Your task to perform on an android device: open app "Messages" (install if not already installed), go to login, and select forgot password Image 0: 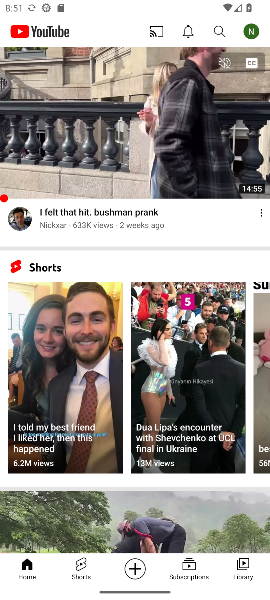
Step 0: press home button
Your task to perform on an android device: open app "Messages" (install if not already installed), go to login, and select forgot password Image 1: 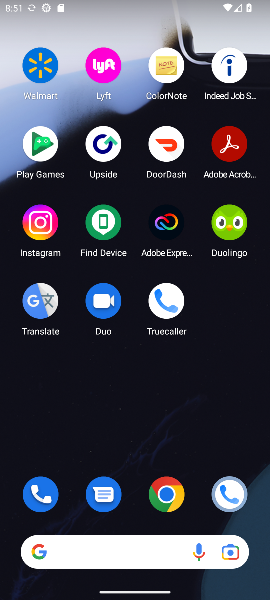
Step 1: drag from (194, 517) to (195, 175)
Your task to perform on an android device: open app "Messages" (install if not already installed), go to login, and select forgot password Image 2: 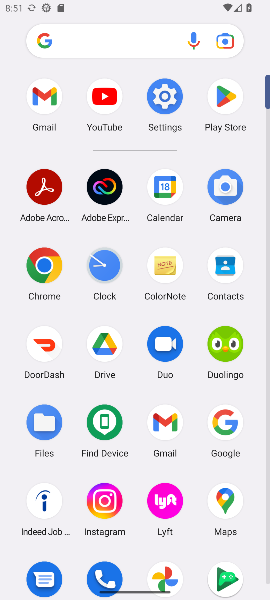
Step 2: drag from (197, 469) to (190, 177)
Your task to perform on an android device: open app "Messages" (install if not already installed), go to login, and select forgot password Image 3: 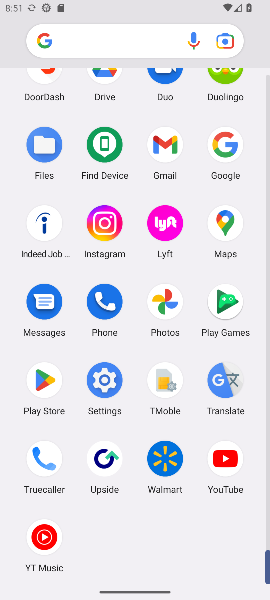
Step 3: click (42, 377)
Your task to perform on an android device: open app "Messages" (install if not already installed), go to login, and select forgot password Image 4: 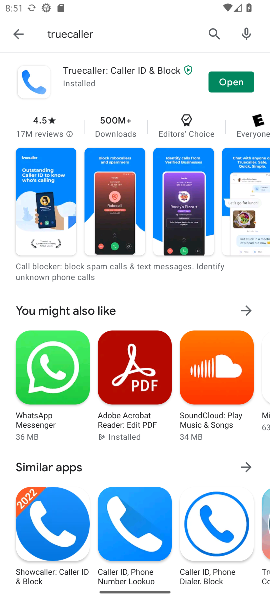
Step 4: click (213, 27)
Your task to perform on an android device: open app "Messages" (install if not already installed), go to login, and select forgot password Image 5: 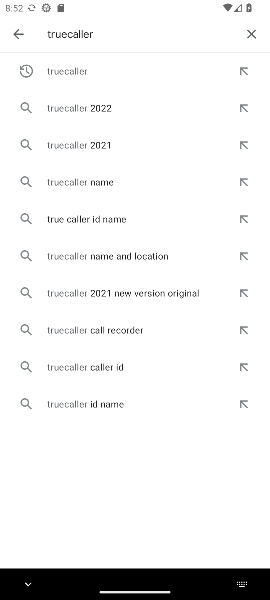
Step 5: click (250, 31)
Your task to perform on an android device: open app "Messages" (install if not already installed), go to login, and select forgot password Image 6: 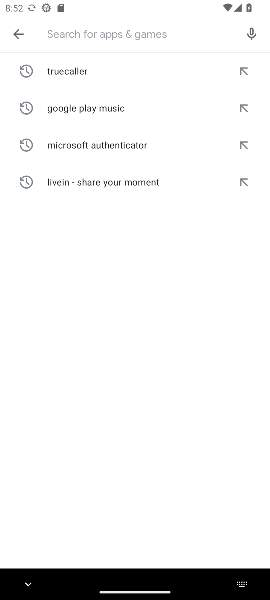
Step 6: type "massages"
Your task to perform on an android device: open app "Messages" (install if not already installed), go to login, and select forgot password Image 7: 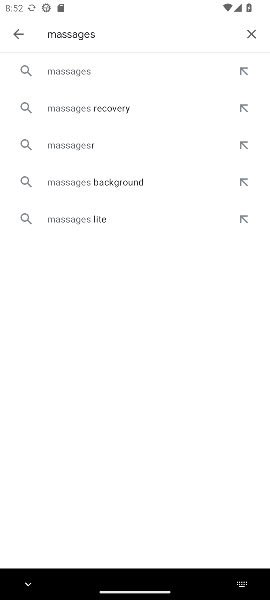
Step 7: click (62, 69)
Your task to perform on an android device: open app "Messages" (install if not already installed), go to login, and select forgot password Image 8: 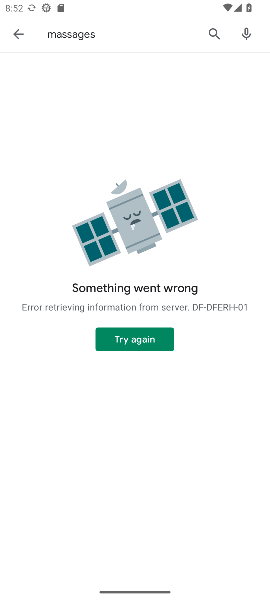
Step 8: click (126, 341)
Your task to perform on an android device: open app "Messages" (install if not already installed), go to login, and select forgot password Image 9: 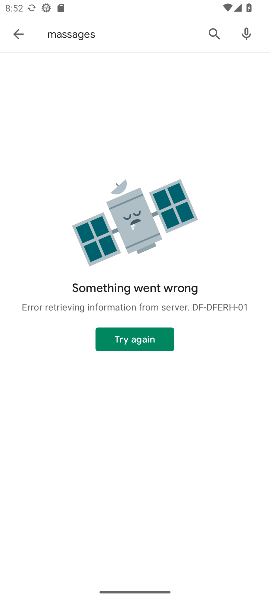
Step 9: click (140, 342)
Your task to perform on an android device: open app "Messages" (install if not already installed), go to login, and select forgot password Image 10: 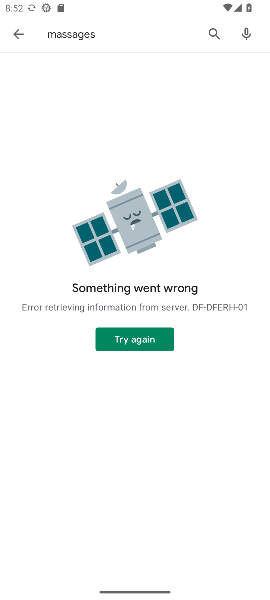
Step 10: task complete